Your task to perform on an android device: Turn off the flashlight Image 0: 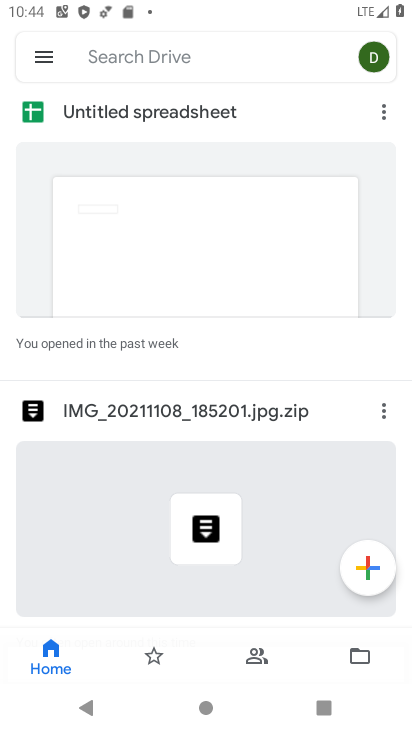
Step 0: press home button
Your task to perform on an android device: Turn off the flashlight Image 1: 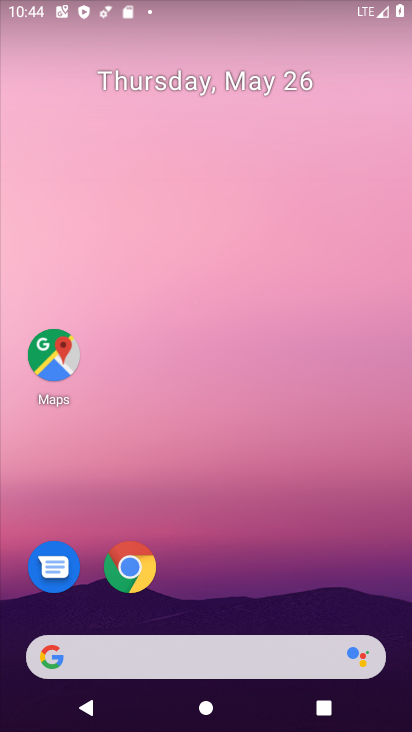
Step 1: task complete